Your task to perform on an android device: move a message to another label in the gmail app Image 0: 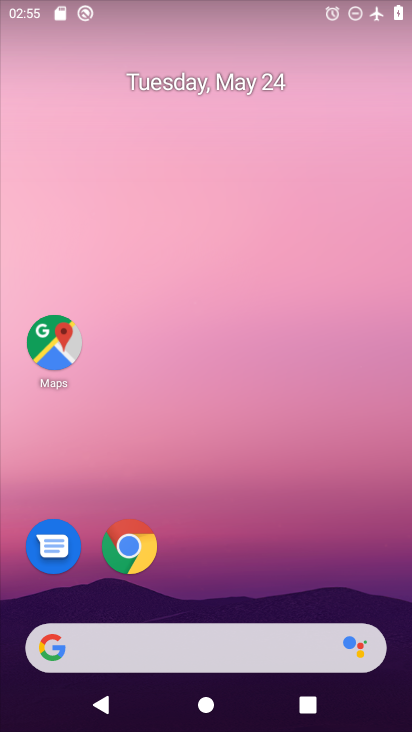
Step 0: drag from (161, 650) to (229, 72)
Your task to perform on an android device: move a message to another label in the gmail app Image 1: 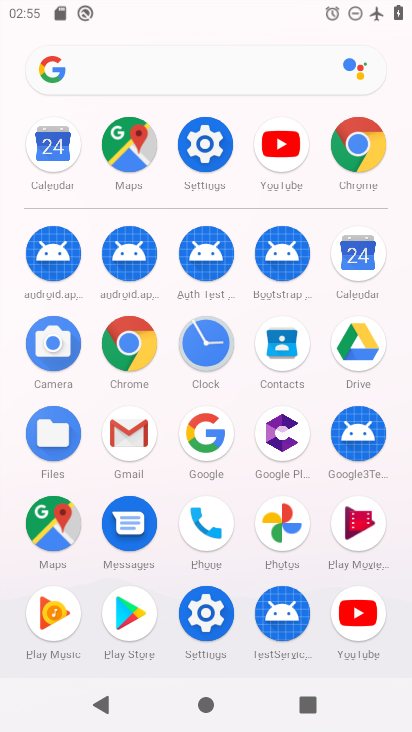
Step 1: click (131, 444)
Your task to perform on an android device: move a message to another label in the gmail app Image 2: 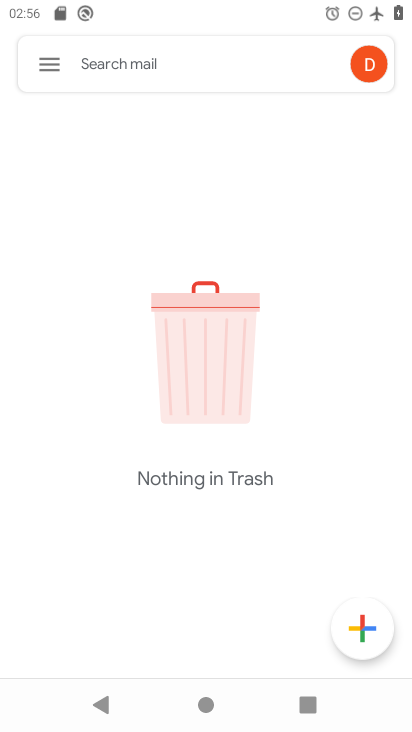
Step 2: click (52, 57)
Your task to perform on an android device: move a message to another label in the gmail app Image 3: 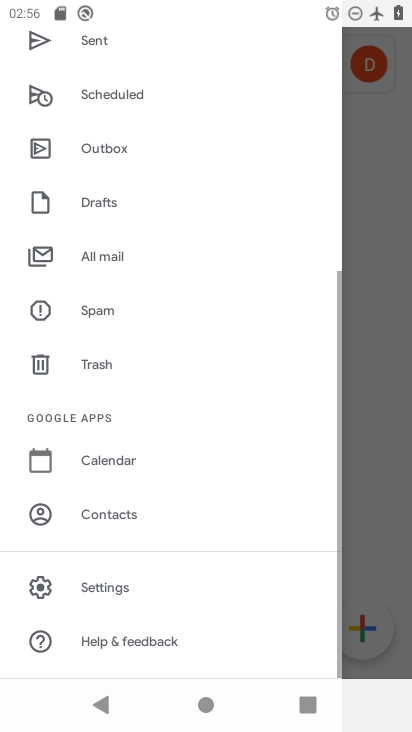
Step 3: drag from (125, 117) to (136, 720)
Your task to perform on an android device: move a message to another label in the gmail app Image 4: 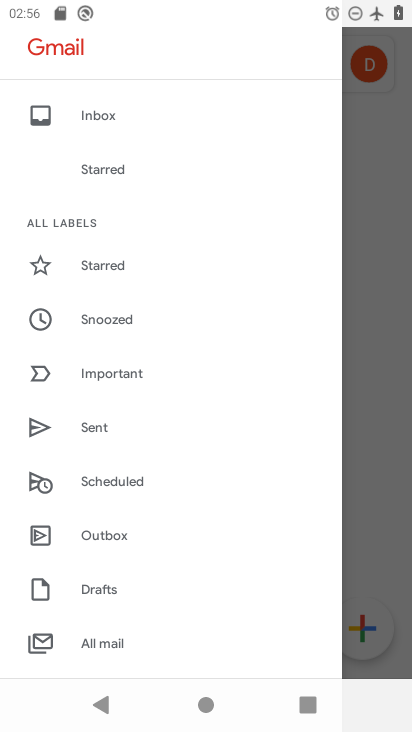
Step 4: click (82, 116)
Your task to perform on an android device: move a message to another label in the gmail app Image 5: 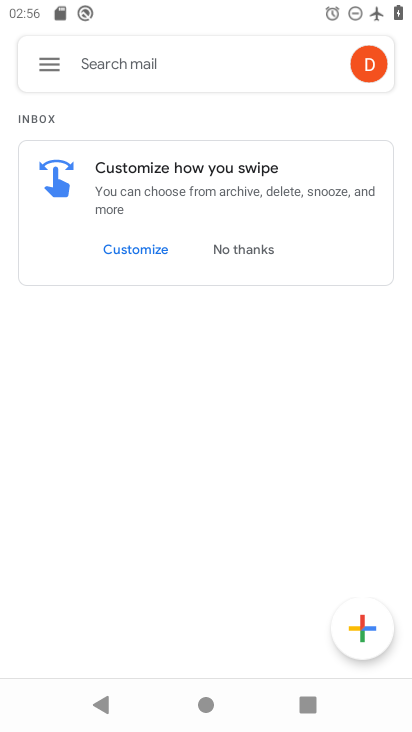
Step 5: task complete